Your task to perform on an android device: turn off translation in the chrome app Image 0: 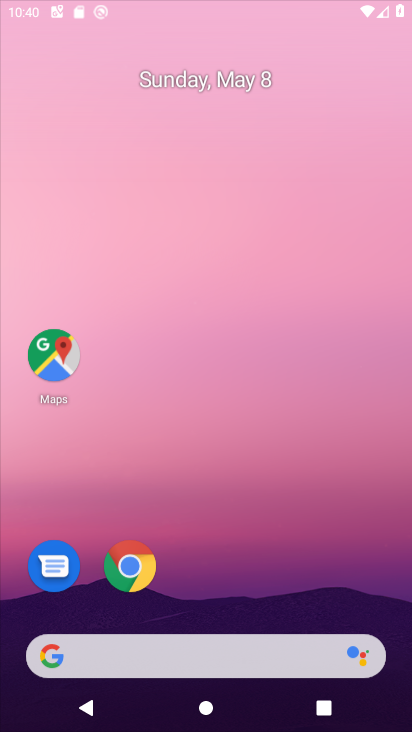
Step 0: click (206, 153)
Your task to perform on an android device: turn off translation in the chrome app Image 1: 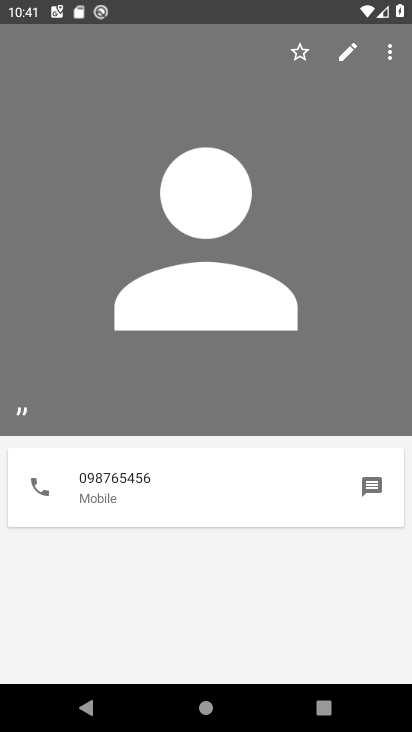
Step 1: press home button
Your task to perform on an android device: turn off translation in the chrome app Image 2: 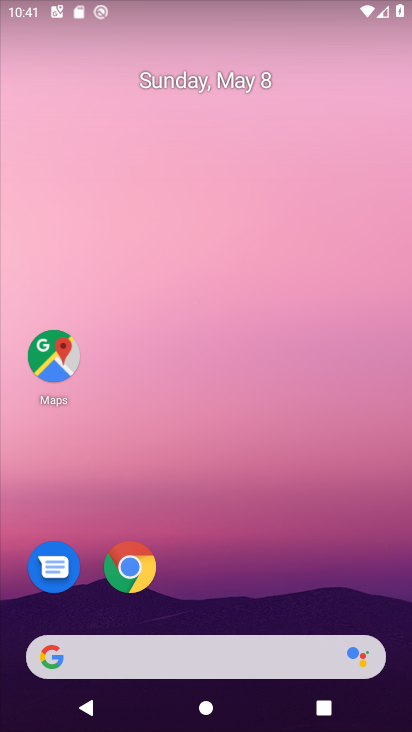
Step 2: drag from (275, 597) to (275, 129)
Your task to perform on an android device: turn off translation in the chrome app Image 3: 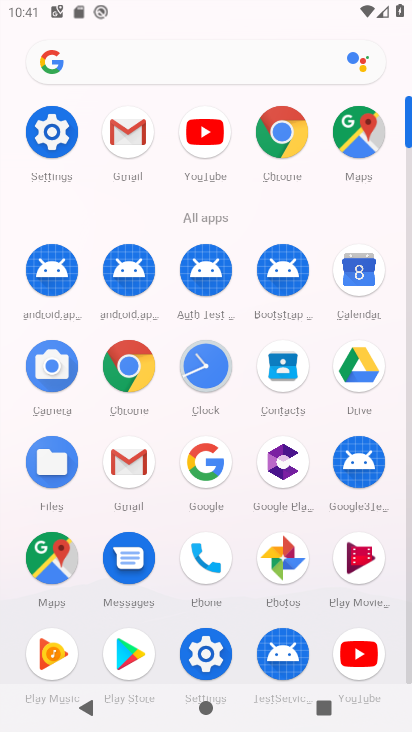
Step 3: click (279, 166)
Your task to perform on an android device: turn off translation in the chrome app Image 4: 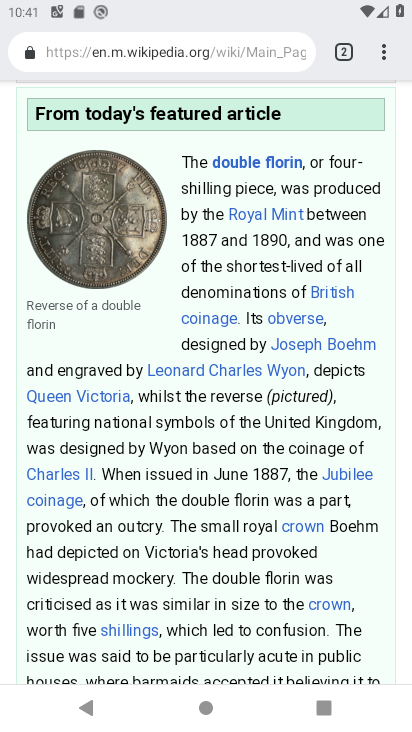
Step 4: click (379, 51)
Your task to perform on an android device: turn off translation in the chrome app Image 5: 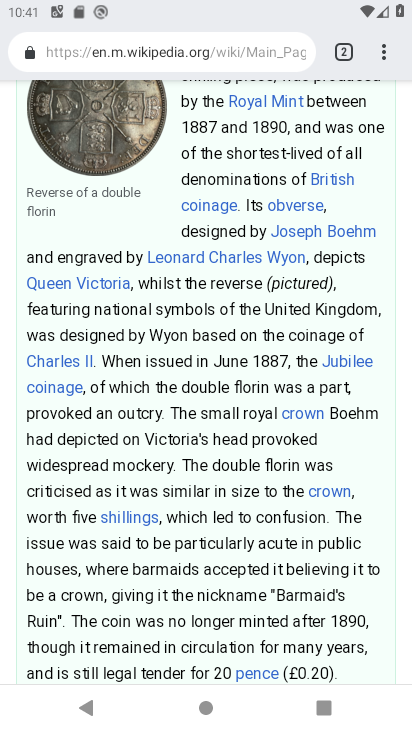
Step 5: click (388, 54)
Your task to perform on an android device: turn off translation in the chrome app Image 6: 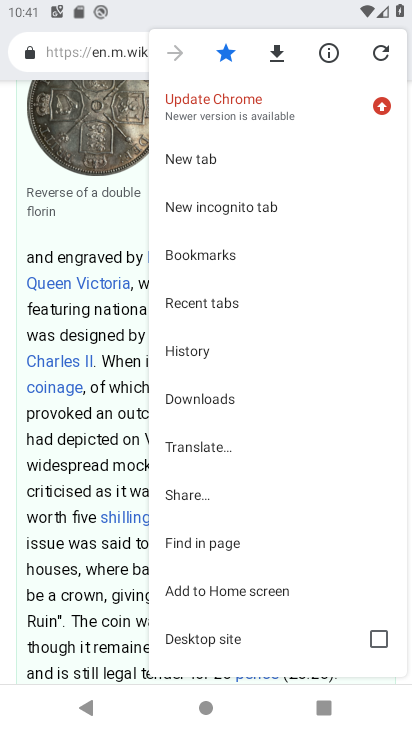
Step 6: drag from (210, 622) to (242, 278)
Your task to perform on an android device: turn off translation in the chrome app Image 7: 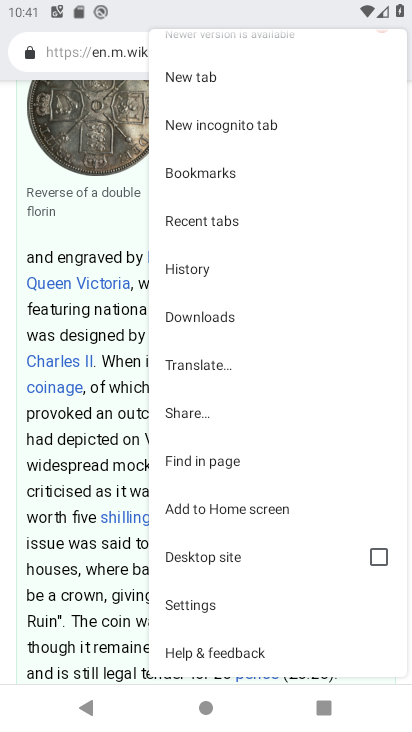
Step 7: click (204, 608)
Your task to perform on an android device: turn off translation in the chrome app Image 8: 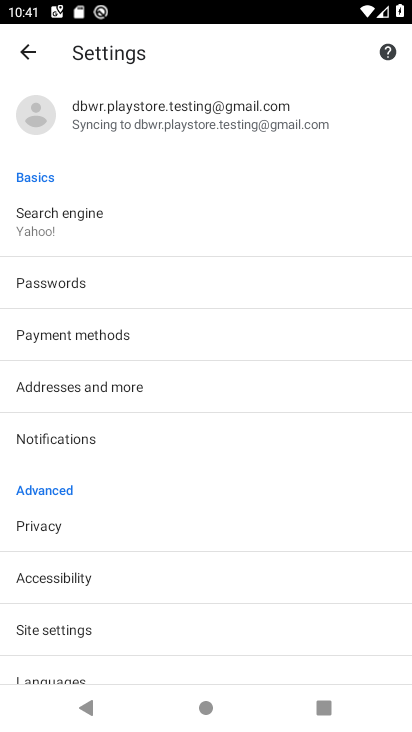
Step 8: drag from (114, 645) to (154, 430)
Your task to perform on an android device: turn off translation in the chrome app Image 9: 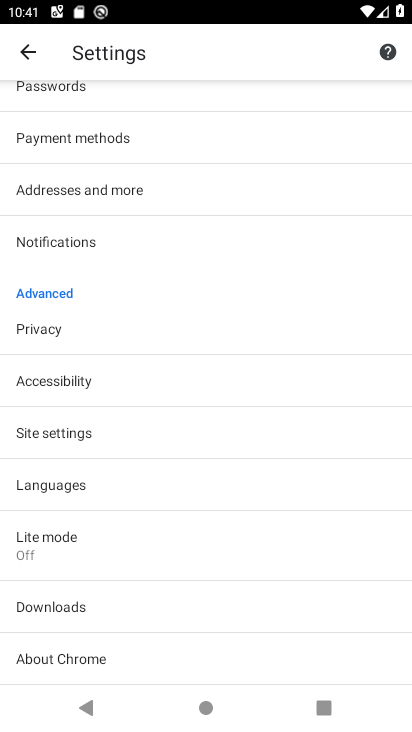
Step 9: click (90, 488)
Your task to perform on an android device: turn off translation in the chrome app Image 10: 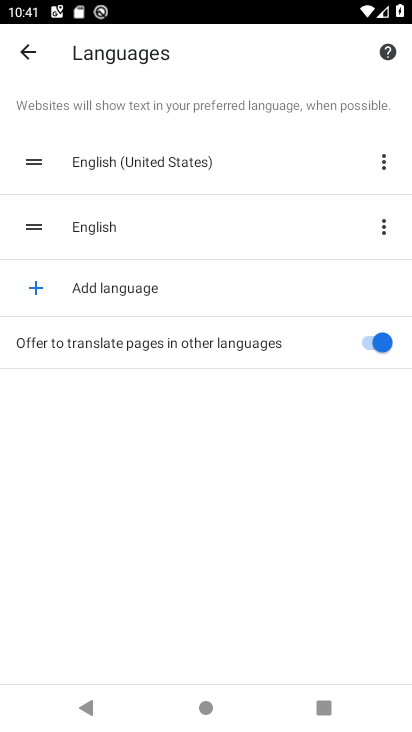
Step 10: click (363, 349)
Your task to perform on an android device: turn off translation in the chrome app Image 11: 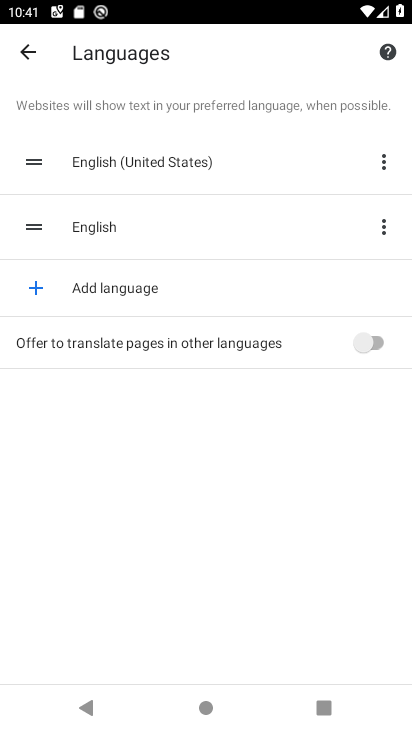
Step 11: task complete